Your task to perform on an android device: Open calendar and show me the third week of next month Image 0: 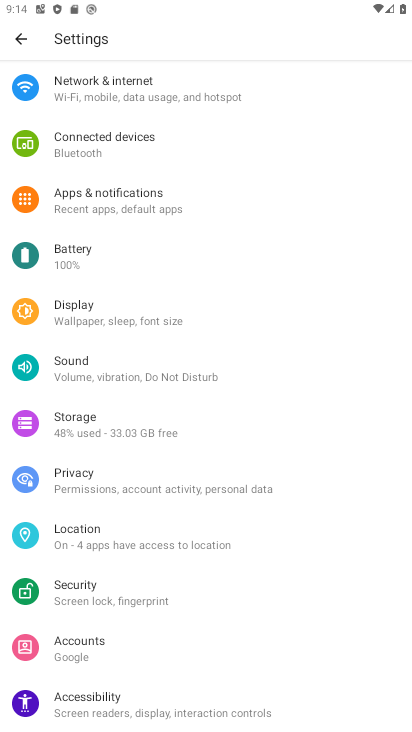
Step 0: press home button
Your task to perform on an android device: Open calendar and show me the third week of next month Image 1: 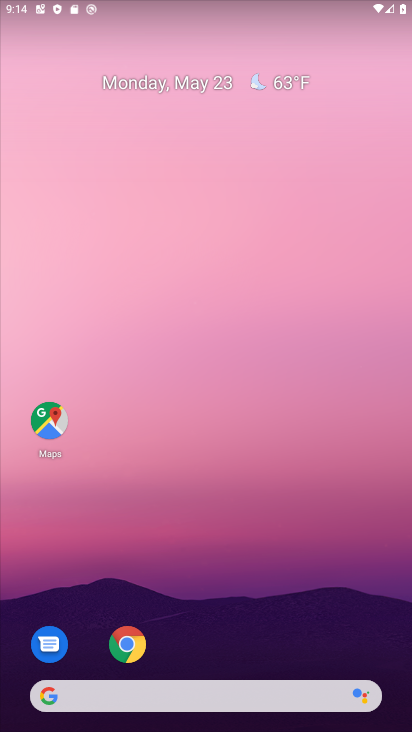
Step 1: drag from (198, 660) to (253, 163)
Your task to perform on an android device: Open calendar and show me the third week of next month Image 2: 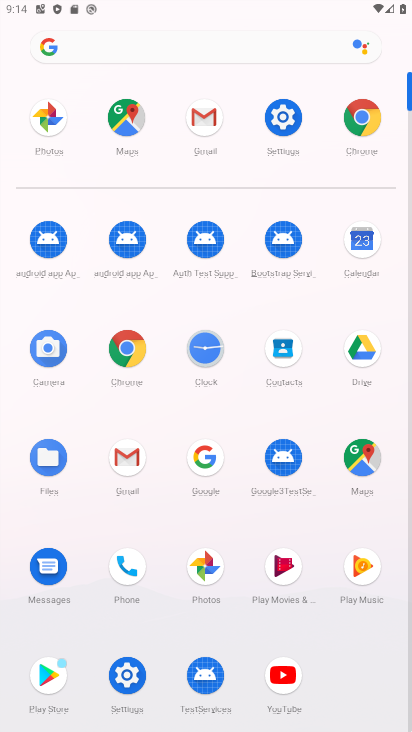
Step 2: click (364, 235)
Your task to perform on an android device: Open calendar and show me the third week of next month Image 3: 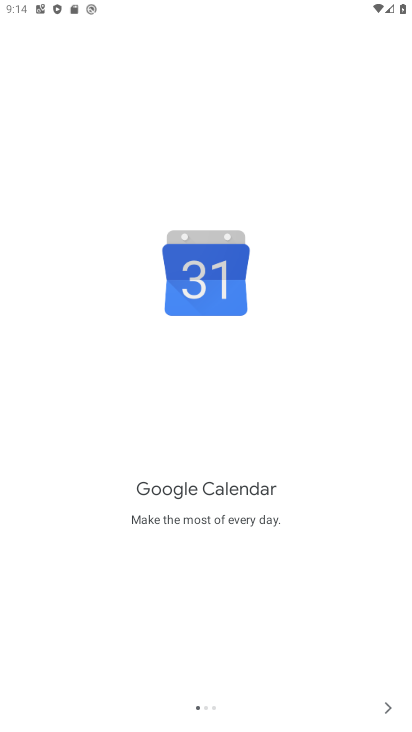
Step 3: click (389, 703)
Your task to perform on an android device: Open calendar and show me the third week of next month Image 4: 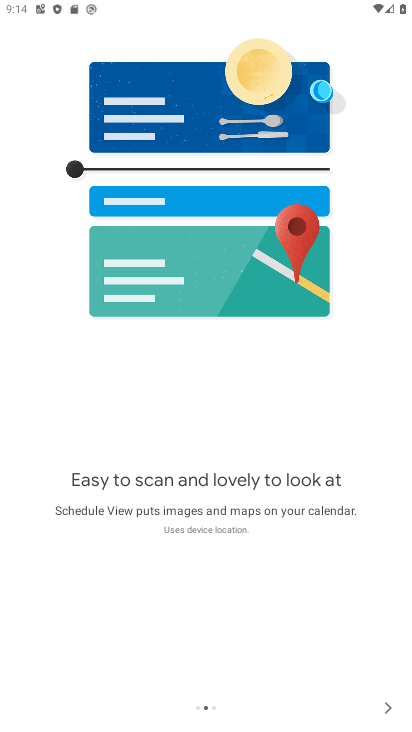
Step 4: click (390, 703)
Your task to perform on an android device: Open calendar and show me the third week of next month Image 5: 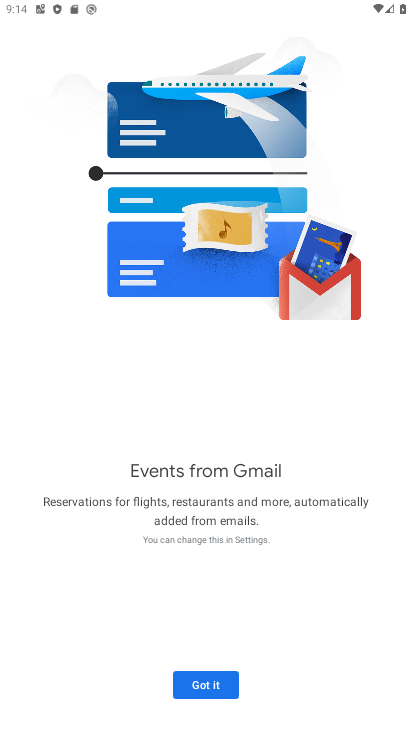
Step 5: click (205, 681)
Your task to perform on an android device: Open calendar and show me the third week of next month Image 6: 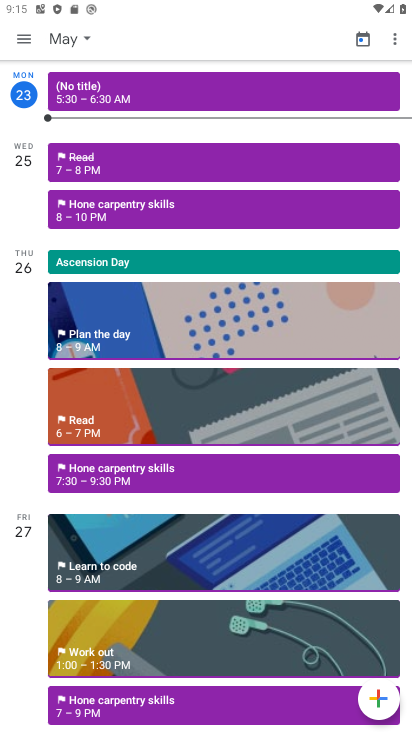
Step 6: click (83, 29)
Your task to perform on an android device: Open calendar and show me the third week of next month Image 7: 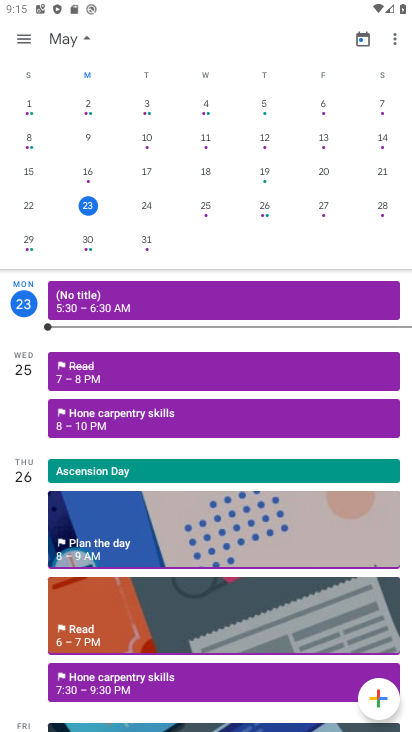
Step 7: drag from (350, 156) to (12, 205)
Your task to perform on an android device: Open calendar and show me the third week of next month Image 8: 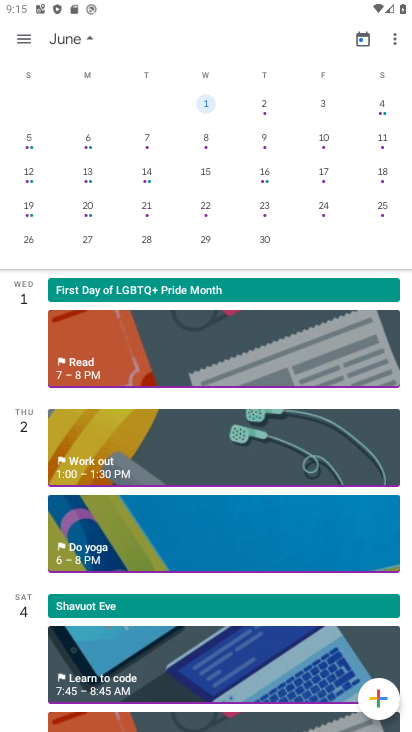
Step 8: click (30, 168)
Your task to perform on an android device: Open calendar and show me the third week of next month Image 9: 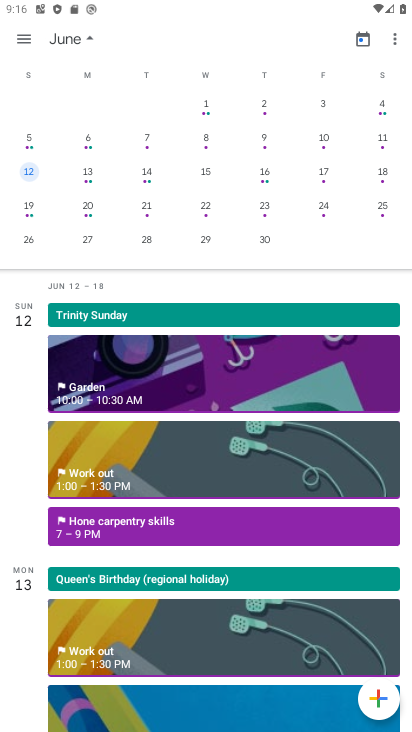
Step 9: click (88, 28)
Your task to perform on an android device: Open calendar and show me the third week of next month Image 10: 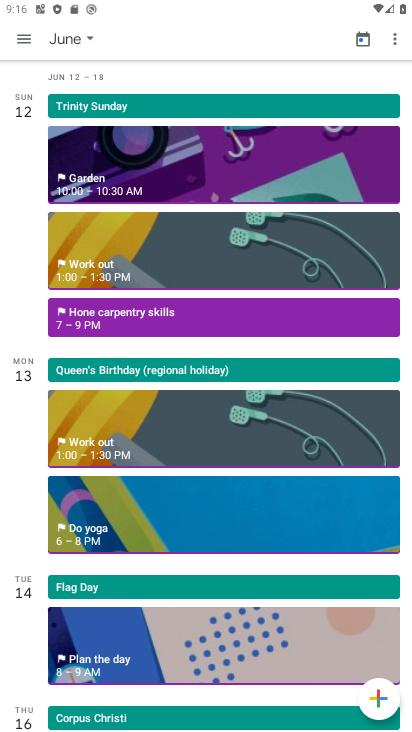
Step 10: task complete